Your task to perform on an android device: change the clock display to show seconds Image 0: 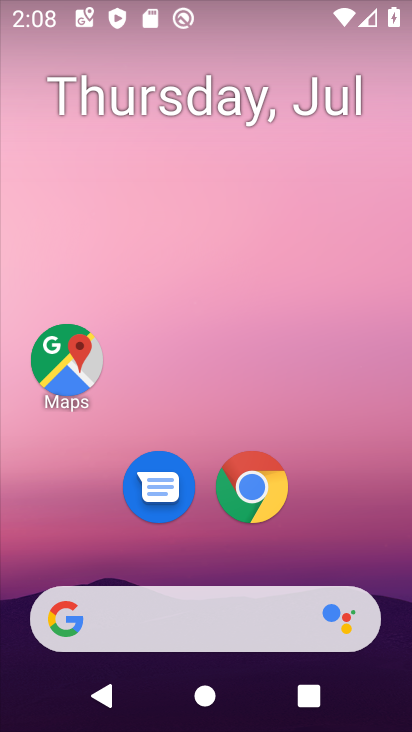
Step 0: drag from (347, 544) to (343, 177)
Your task to perform on an android device: change the clock display to show seconds Image 1: 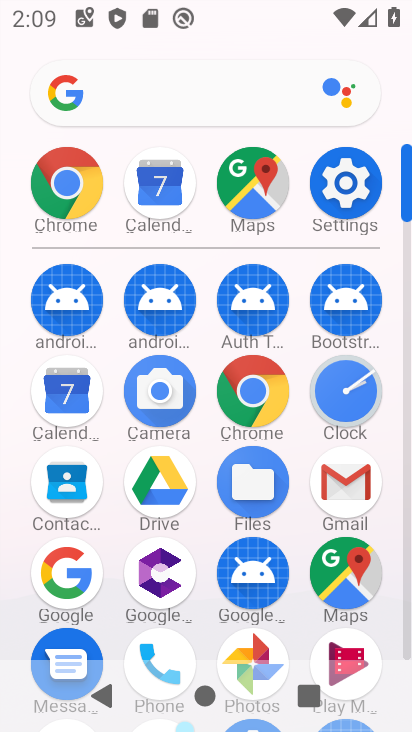
Step 1: click (348, 389)
Your task to perform on an android device: change the clock display to show seconds Image 2: 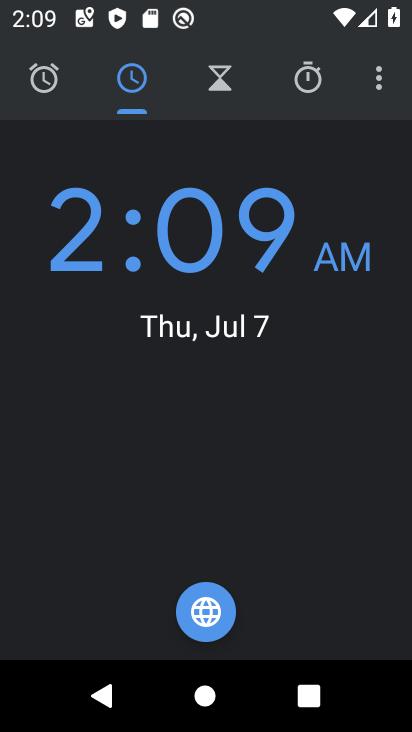
Step 2: click (383, 94)
Your task to perform on an android device: change the clock display to show seconds Image 3: 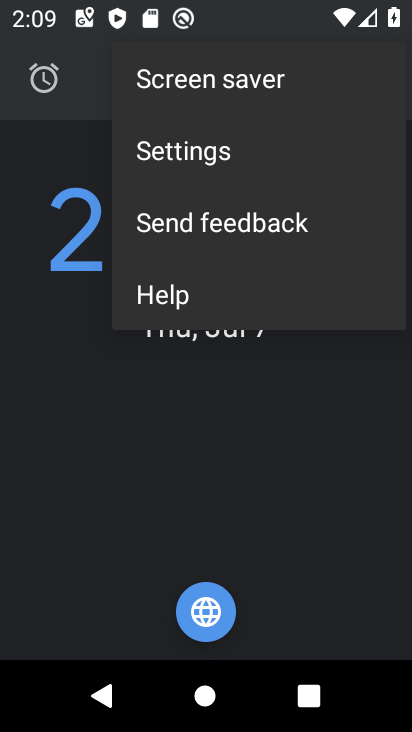
Step 3: click (259, 149)
Your task to perform on an android device: change the clock display to show seconds Image 4: 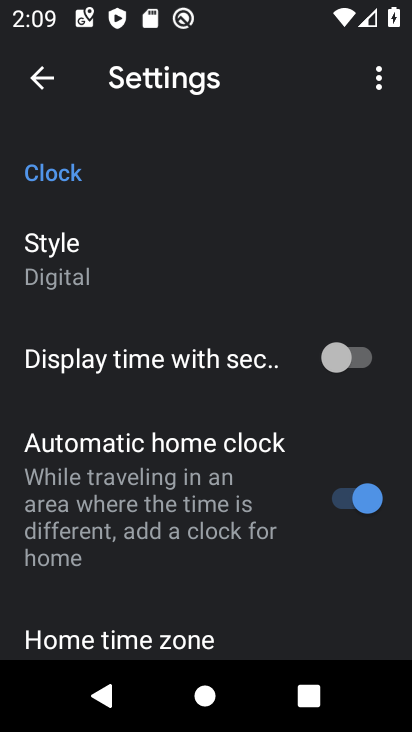
Step 4: click (338, 355)
Your task to perform on an android device: change the clock display to show seconds Image 5: 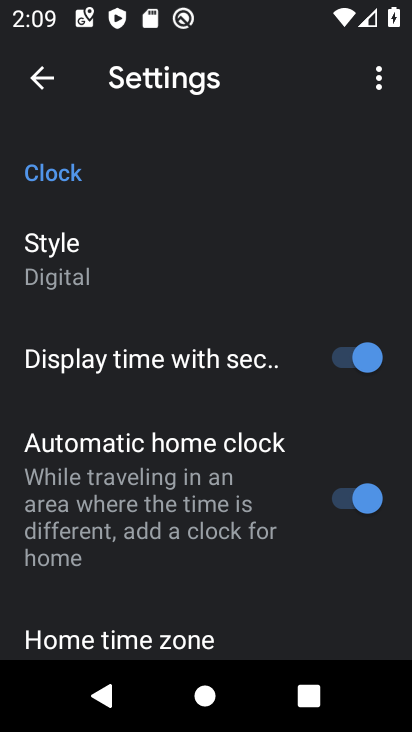
Step 5: task complete